Your task to perform on an android device: Open display settings Image 0: 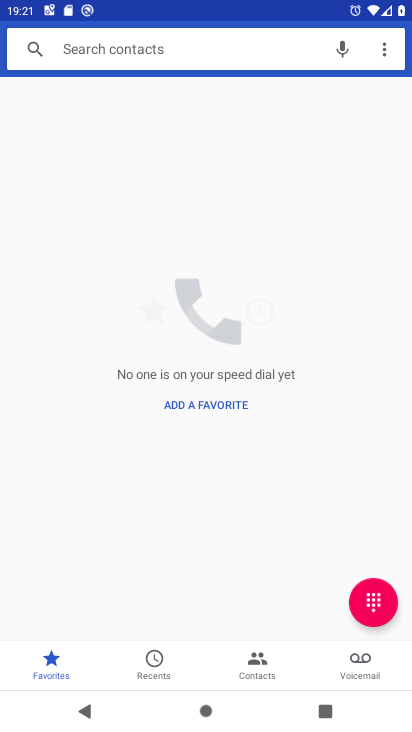
Step 0: press home button
Your task to perform on an android device: Open display settings Image 1: 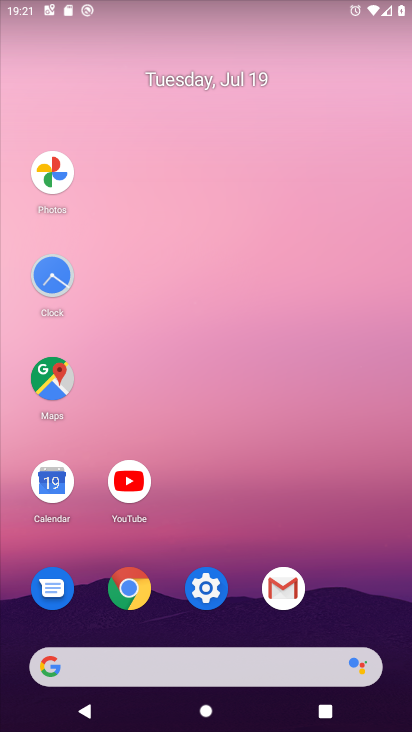
Step 1: click (203, 580)
Your task to perform on an android device: Open display settings Image 2: 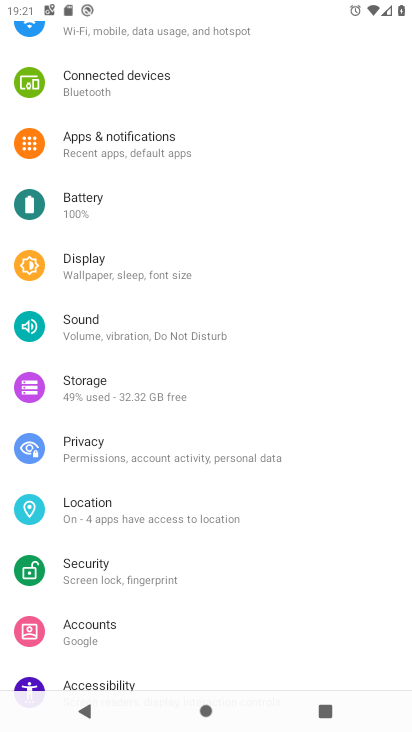
Step 2: click (85, 256)
Your task to perform on an android device: Open display settings Image 3: 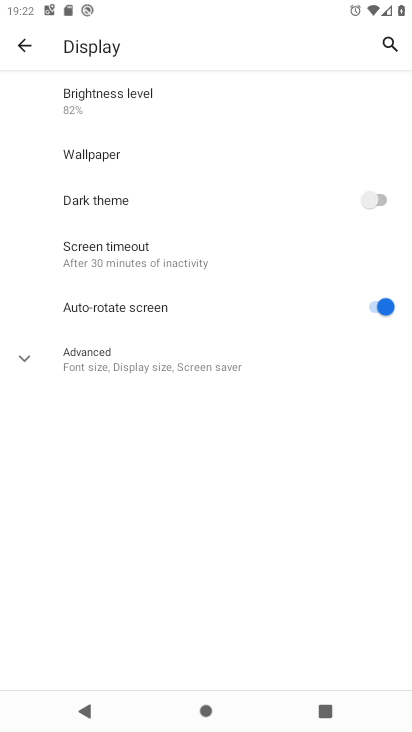
Step 3: task complete